Your task to perform on an android device: star an email in the gmail app Image 0: 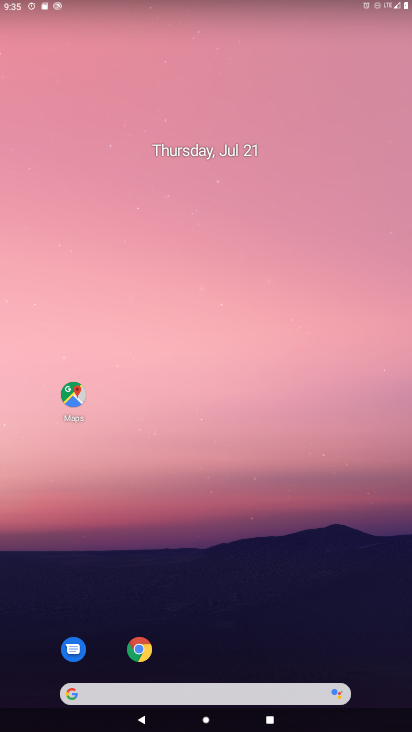
Step 0: drag from (351, 631) to (236, 80)
Your task to perform on an android device: star an email in the gmail app Image 1: 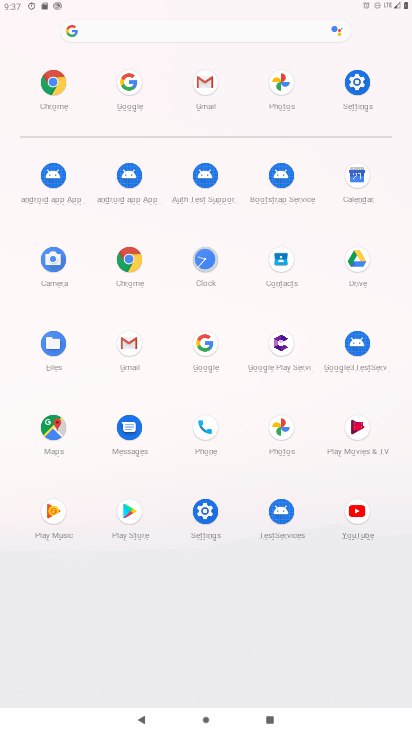
Step 1: click (131, 341)
Your task to perform on an android device: star an email in the gmail app Image 2: 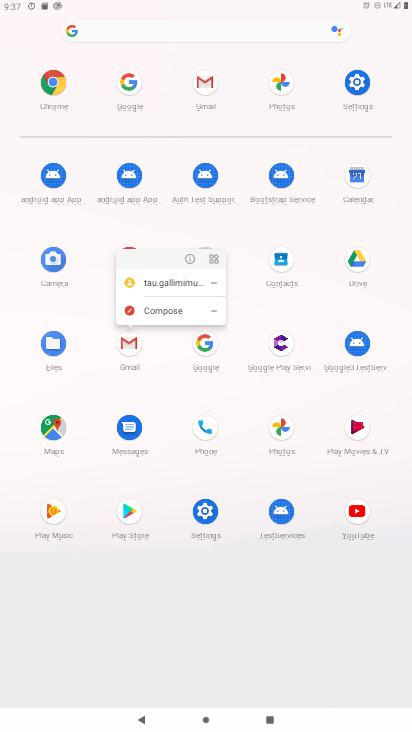
Step 2: click (131, 341)
Your task to perform on an android device: star an email in the gmail app Image 3: 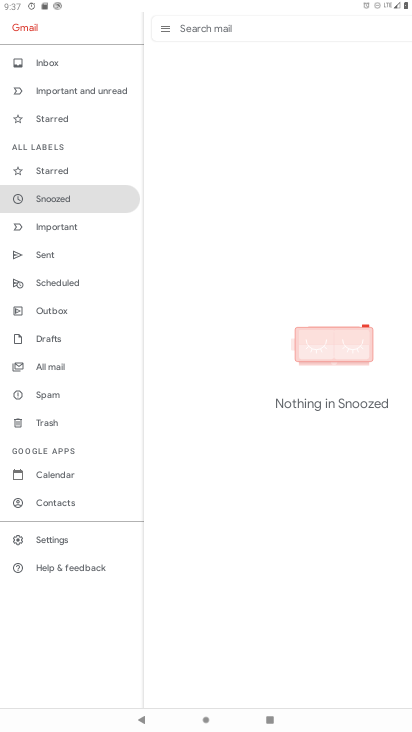
Step 3: click (62, 64)
Your task to perform on an android device: star an email in the gmail app Image 4: 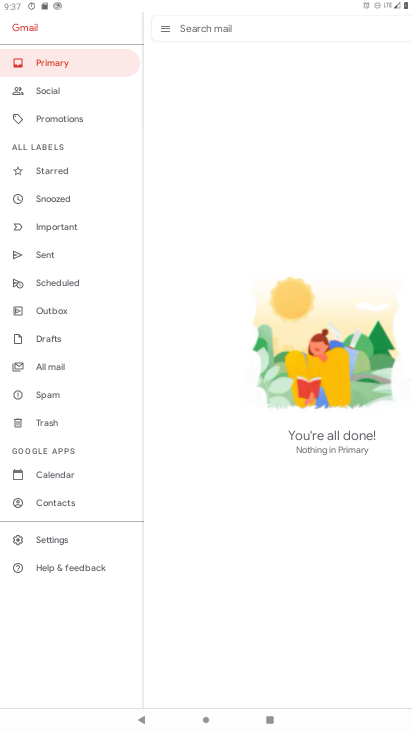
Step 4: task complete